Your task to perform on an android device: What's on my calendar today? Image 0: 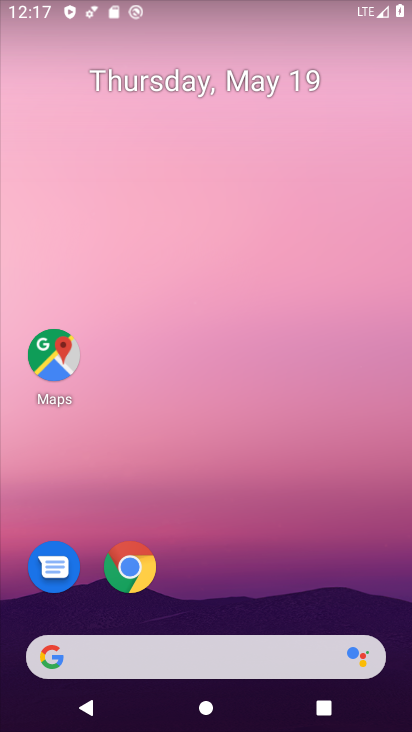
Step 0: drag from (312, 493) to (284, 82)
Your task to perform on an android device: What's on my calendar today? Image 1: 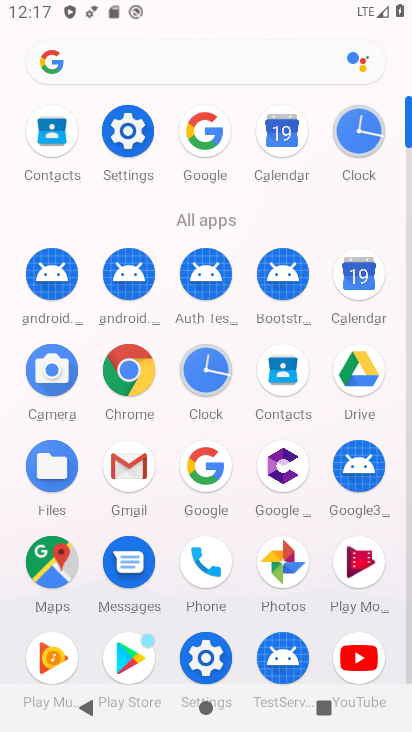
Step 1: click (289, 130)
Your task to perform on an android device: What's on my calendar today? Image 2: 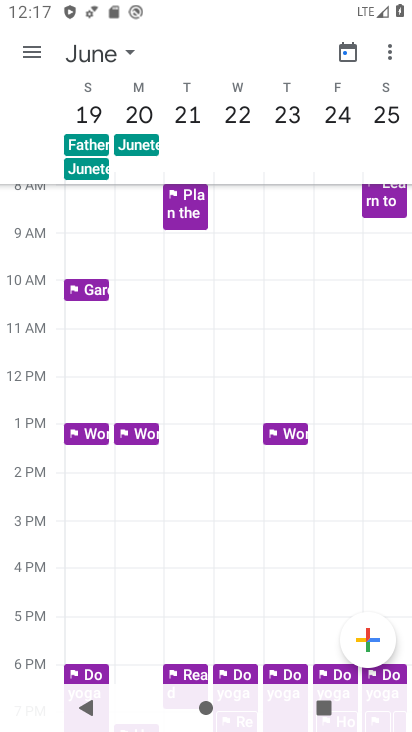
Step 2: click (32, 42)
Your task to perform on an android device: What's on my calendar today? Image 3: 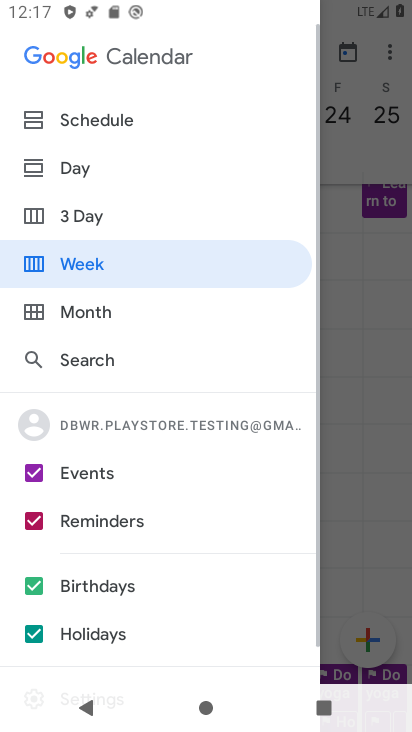
Step 3: click (65, 308)
Your task to perform on an android device: What's on my calendar today? Image 4: 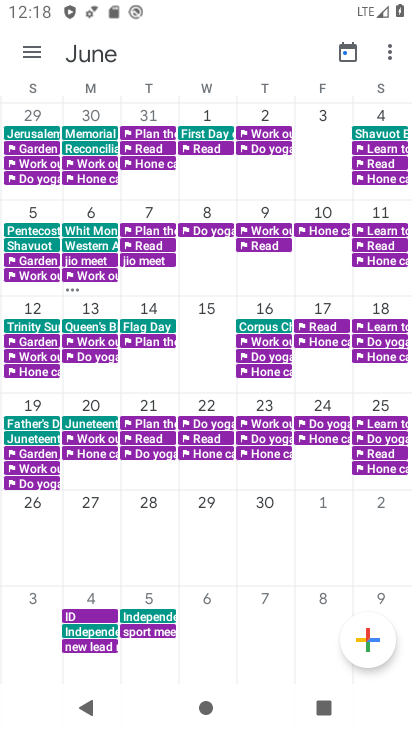
Step 4: drag from (42, 290) to (409, 395)
Your task to perform on an android device: What's on my calendar today? Image 5: 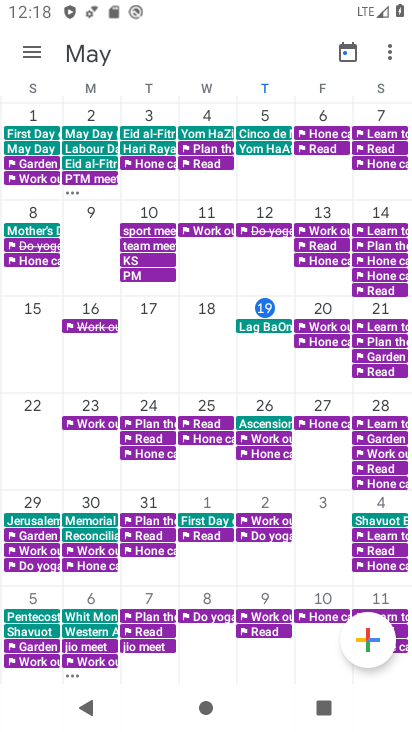
Step 5: click (262, 314)
Your task to perform on an android device: What's on my calendar today? Image 6: 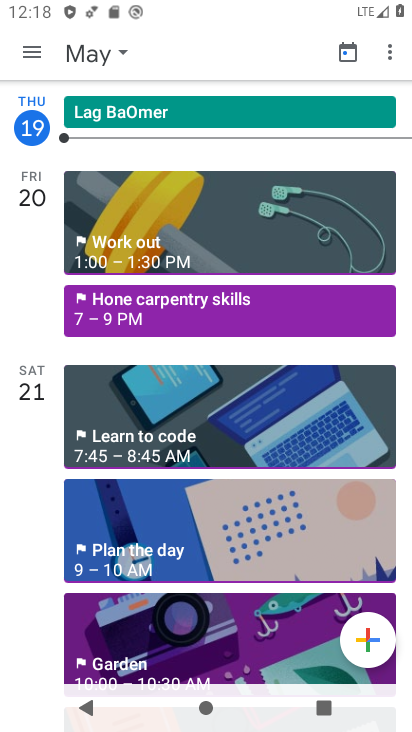
Step 6: task complete